Your task to perform on an android device: turn on location history Image 0: 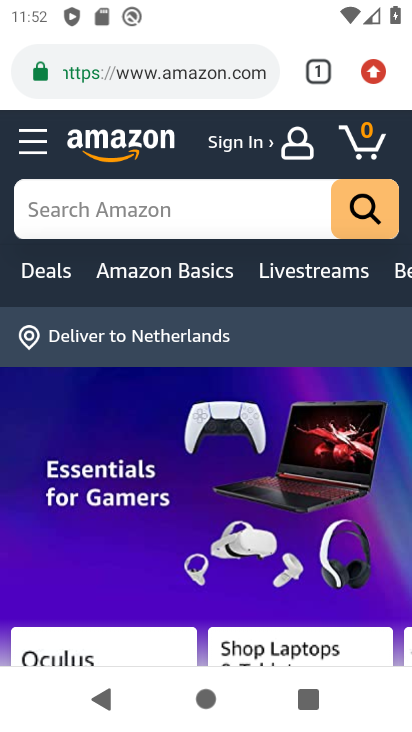
Step 0: press back button
Your task to perform on an android device: turn on location history Image 1: 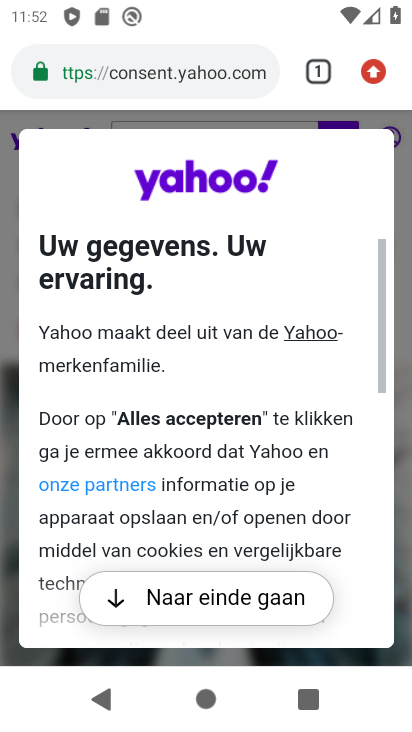
Step 1: click (376, 67)
Your task to perform on an android device: turn on location history Image 2: 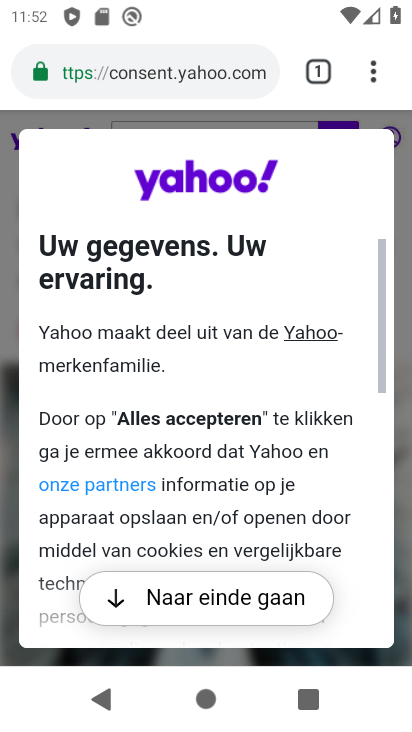
Step 2: press back button
Your task to perform on an android device: turn on location history Image 3: 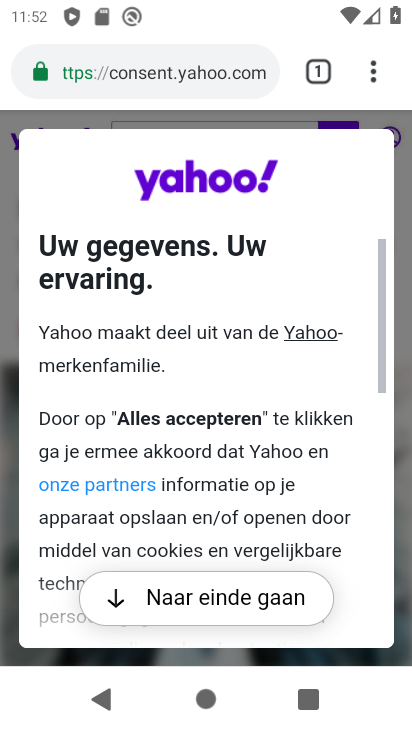
Step 3: press back button
Your task to perform on an android device: turn on location history Image 4: 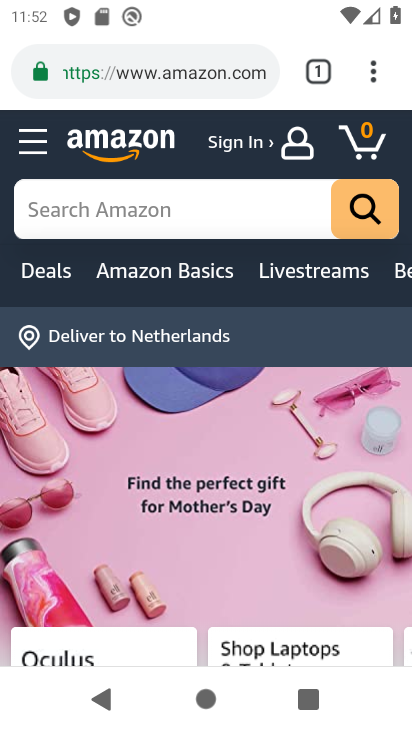
Step 4: press back button
Your task to perform on an android device: turn on location history Image 5: 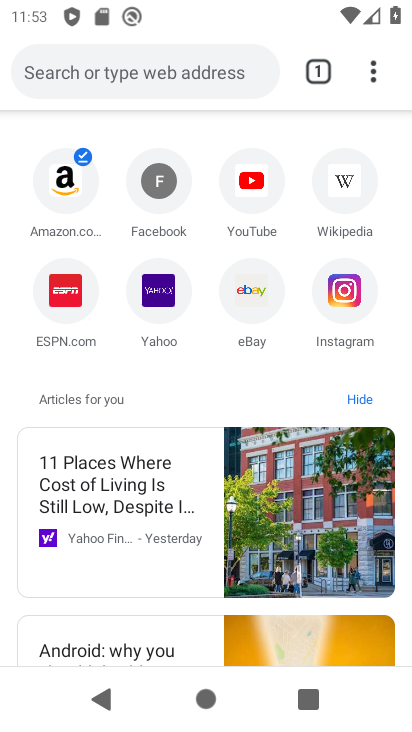
Step 5: press back button
Your task to perform on an android device: turn on location history Image 6: 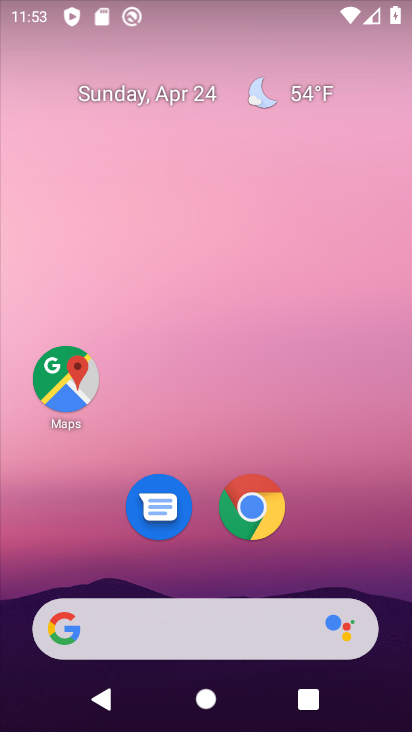
Step 6: drag from (333, 513) to (257, 62)
Your task to perform on an android device: turn on location history Image 7: 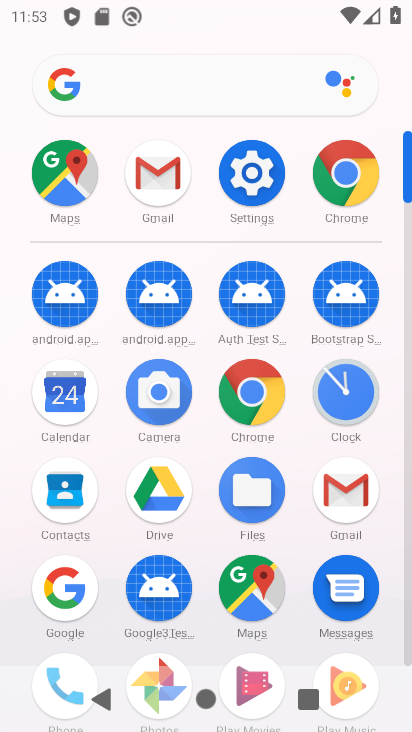
Step 7: drag from (14, 509) to (16, 277)
Your task to perform on an android device: turn on location history Image 8: 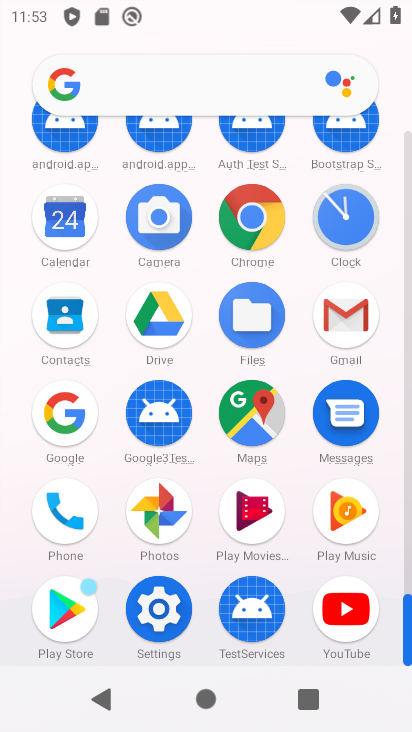
Step 8: click (159, 607)
Your task to perform on an android device: turn on location history Image 9: 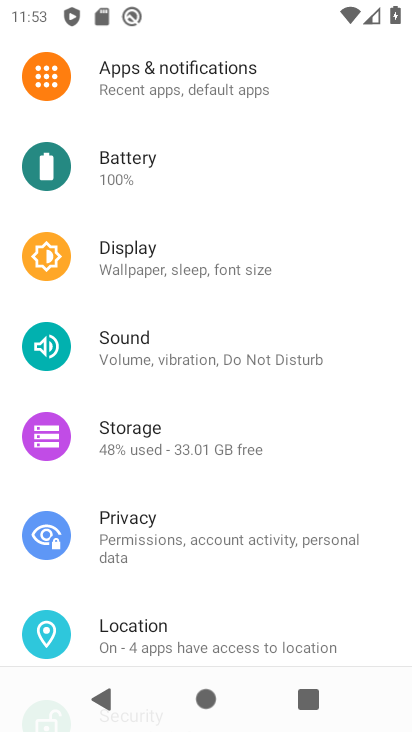
Step 9: drag from (260, 453) to (274, 179)
Your task to perform on an android device: turn on location history Image 10: 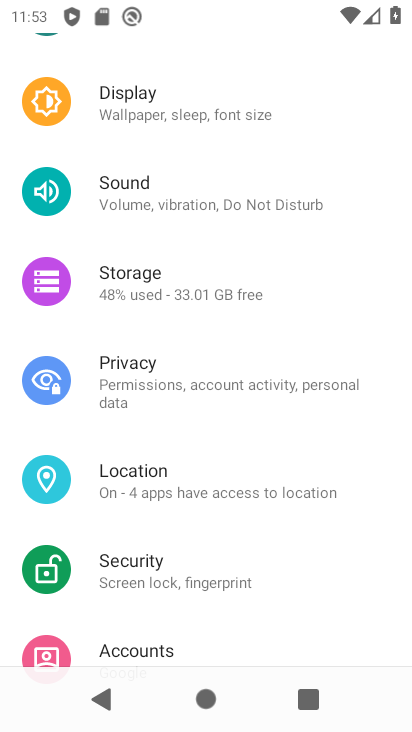
Step 10: click (154, 470)
Your task to perform on an android device: turn on location history Image 11: 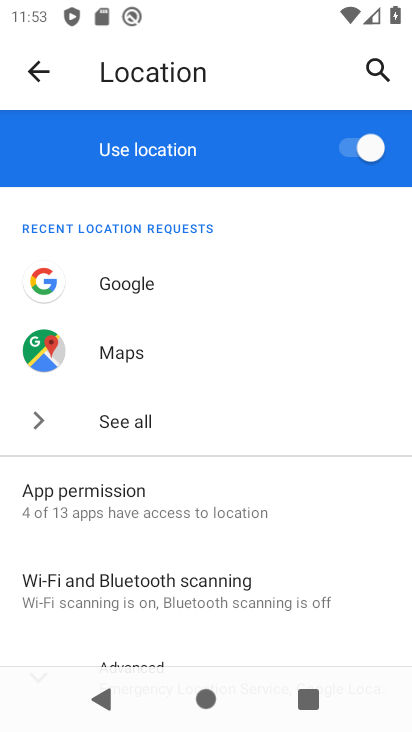
Step 11: drag from (225, 494) to (240, 170)
Your task to perform on an android device: turn on location history Image 12: 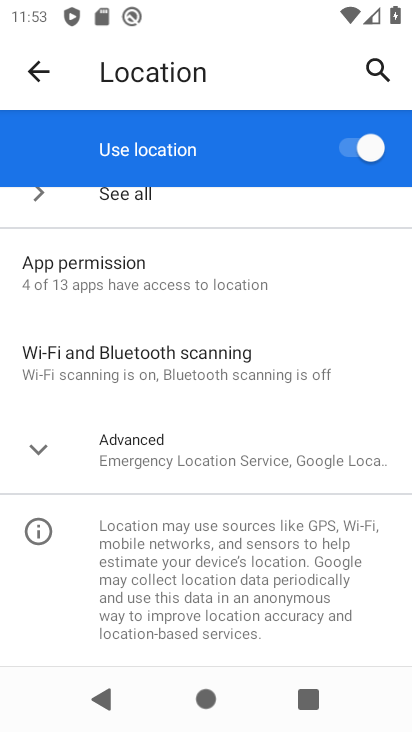
Step 12: click (103, 448)
Your task to perform on an android device: turn on location history Image 13: 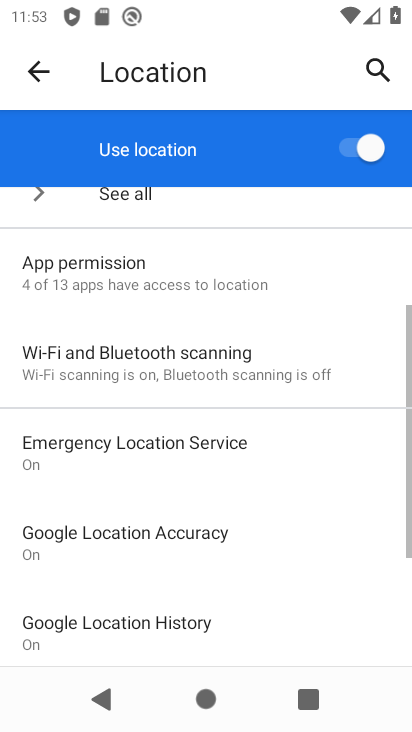
Step 13: drag from (242, 498) to (255, 177)
Your task to perform on an android device: turn on location history Image 14: 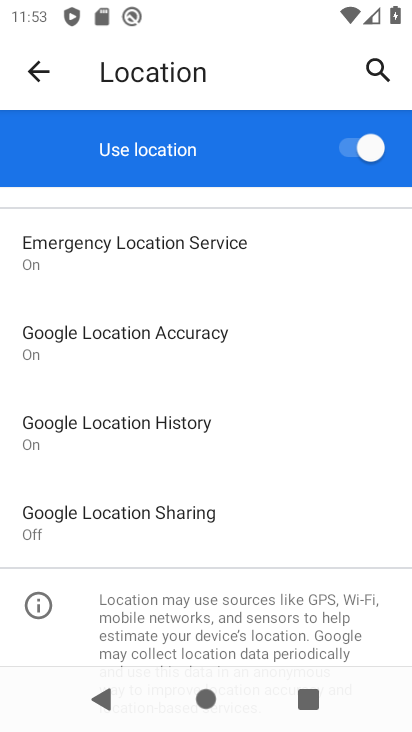
Step 14: click (163, 418)
Your task to perform on an android device: turn on location history Image 15: 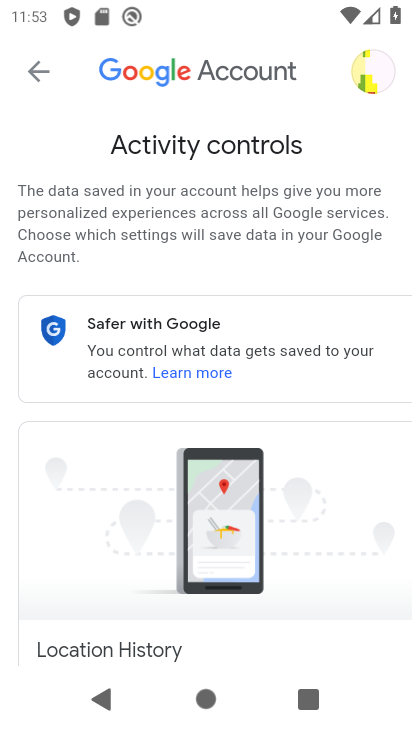
Step 15: task complete